Your task to perform on an android device: turn off picture-in-picture Image 0: 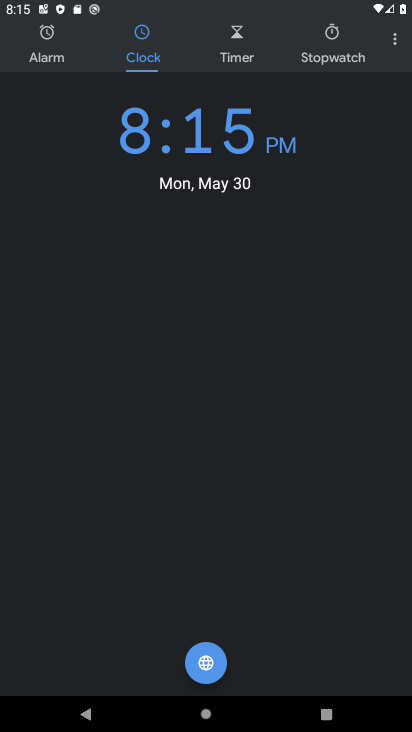
Step 0: press home button
Your task to perform on an android device: turn off picture-in-picture Image 1: 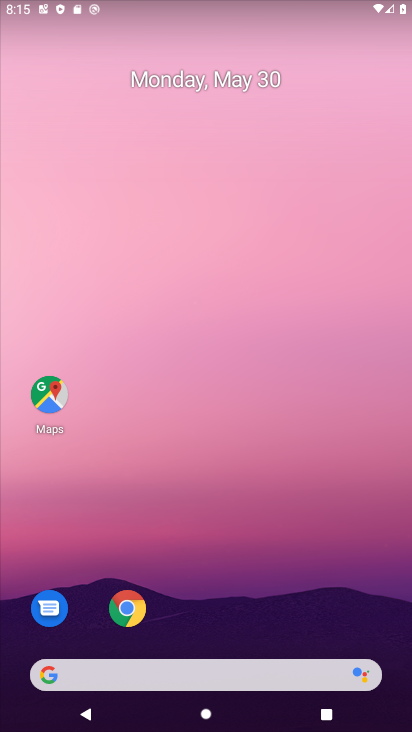
Step 1: click (119, 602)
Your task to perform on an android device: turn off picture-in-picture Image 2: 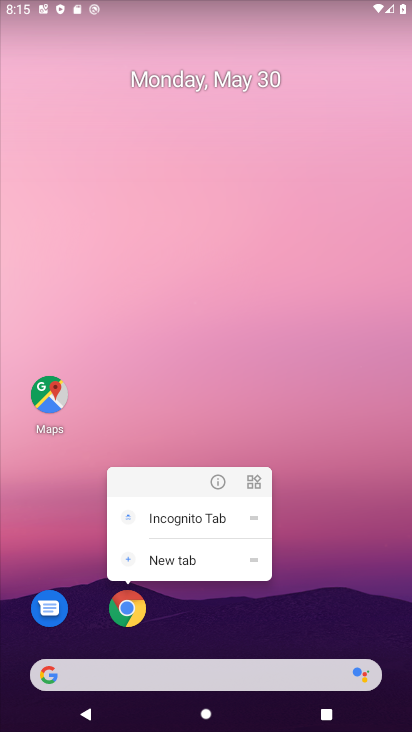
Step 2: click (213, 479)
Your task to perform on an android device: turn off picture-in-picture Image 3: 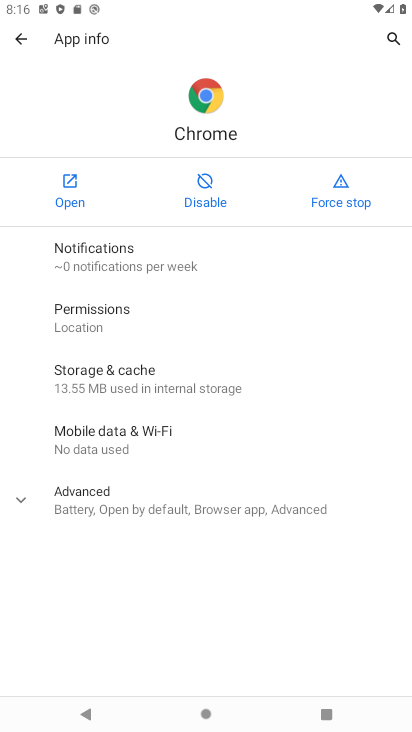
Step 3: click (28, 504)
Your task to perform on an android device: turn off picture-in-picture Image 4: 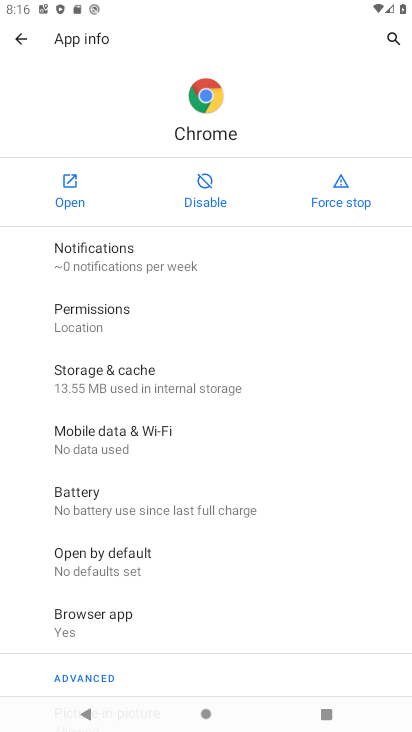
Step 4: drag from (254, 572) to (274, 381)
Your task to perform on an android device: turn off picture-in-picture Image 5: 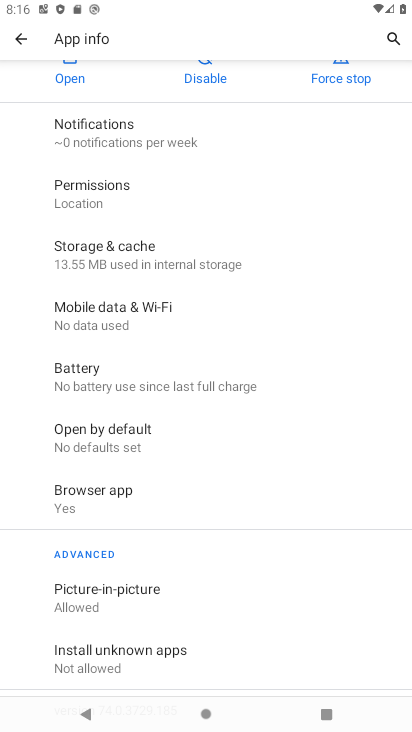
Step 5: click (96, 599)
Your task to perform on an android device: turn off picture-in-picture Image 6: 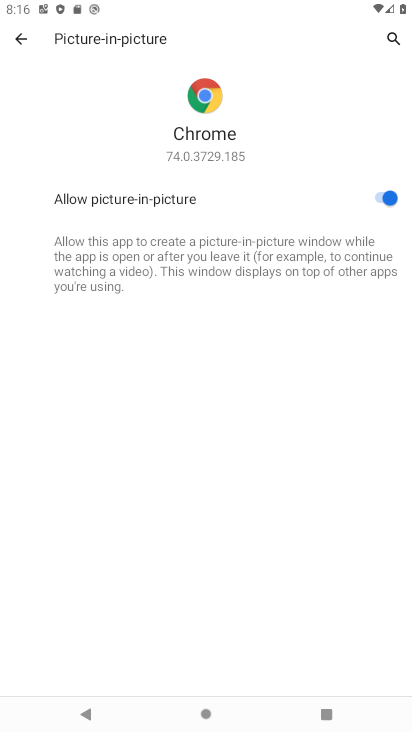
Step 6: click (377, 193)
Your task to perform on an android device: turn off picture-in-picture Image 7: 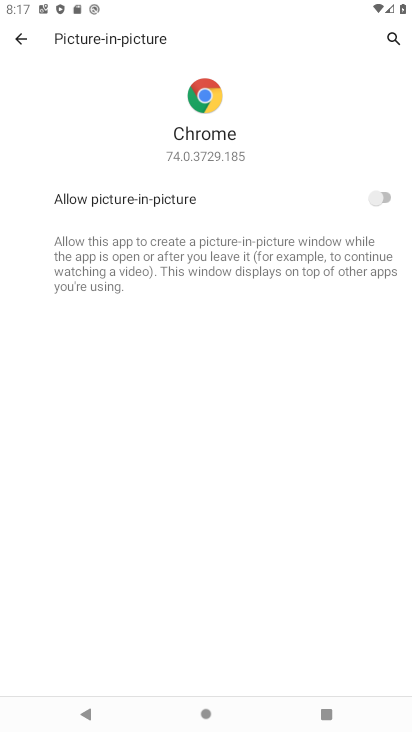
Step 7: task complete